Your task to perform on an android device: Go to wifi settings Image 0: 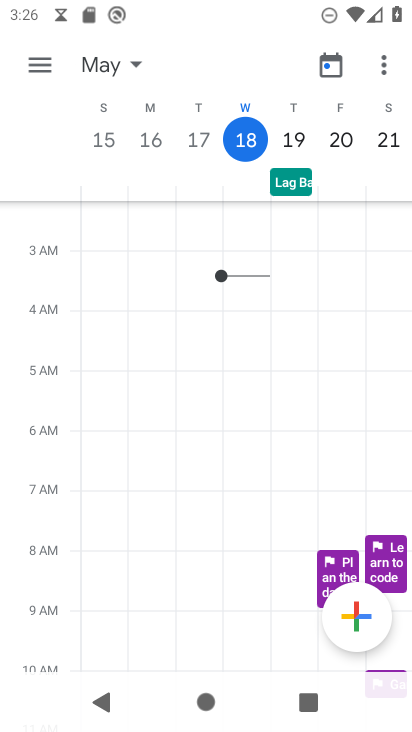
Step 0: press home button
Your task to perform on an android device: Go to wifi settings Image 1: 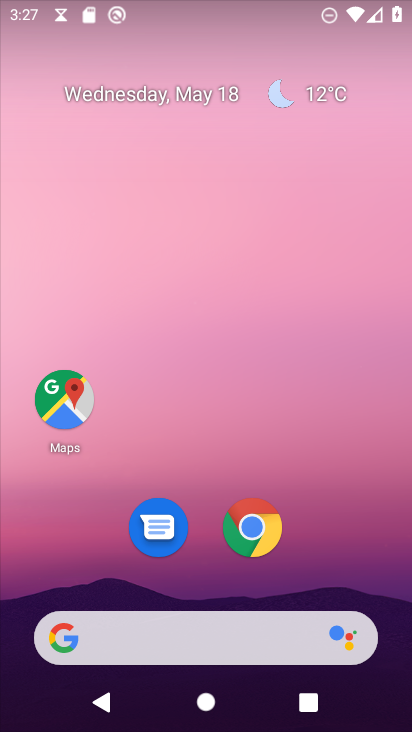
Step 1: drag from (325, 534) to (221, 41)
Your task to perform on an android device: Go to wifi settings Image 2: 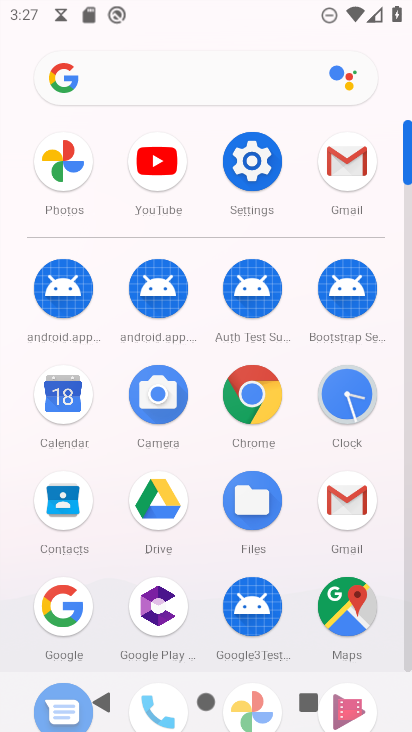
Step 2: click (256, 165)
Your task to perform on an android device: Go to wifi settings Image 3: 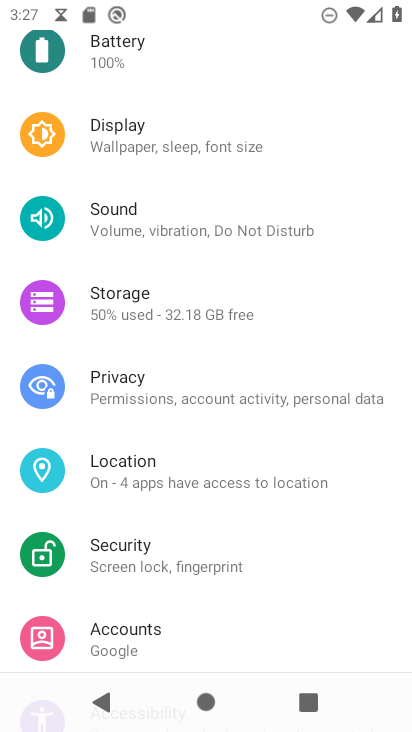
Step 3: drag from (240, 200) to (215, 635)
Your task to perform on an android device: Go to wifi settings Image 4: 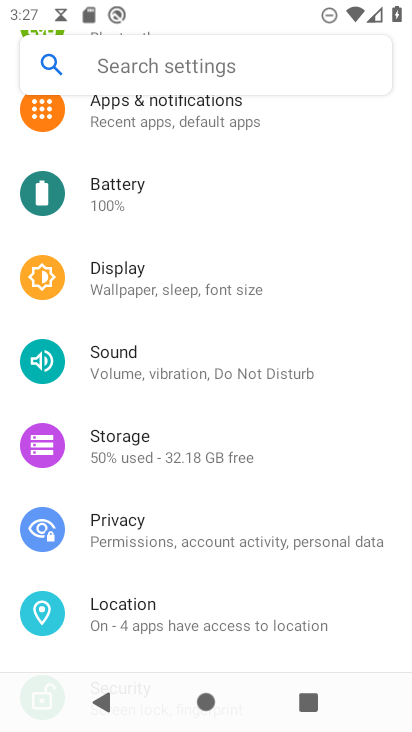
Step 4: drag from (222, 200) to (198, 638)
Your task to perform on an android device: Go to wifi settings Image 5: 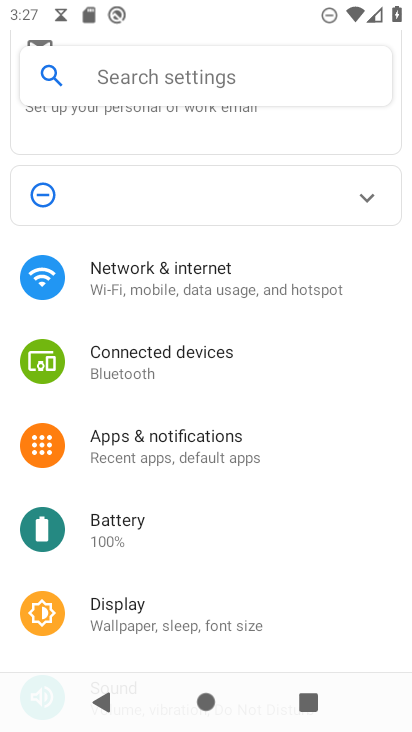
Step 5: click (219, 279)
Your task to perform on an android device: Go to wifi settings Image 6: 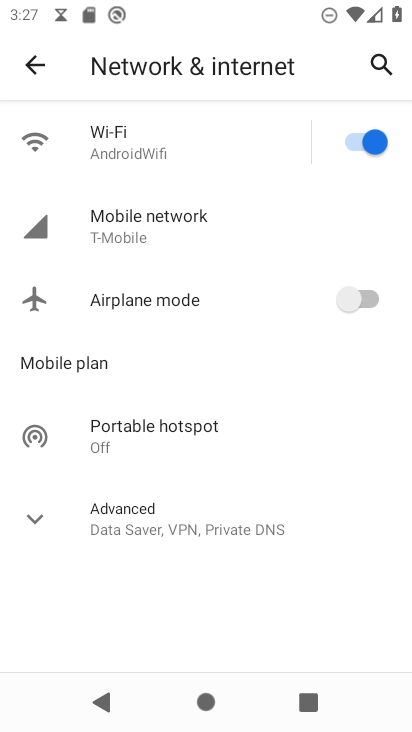
Step 6: task complete